Your task to perform on an android device: See recent photos Image 0: 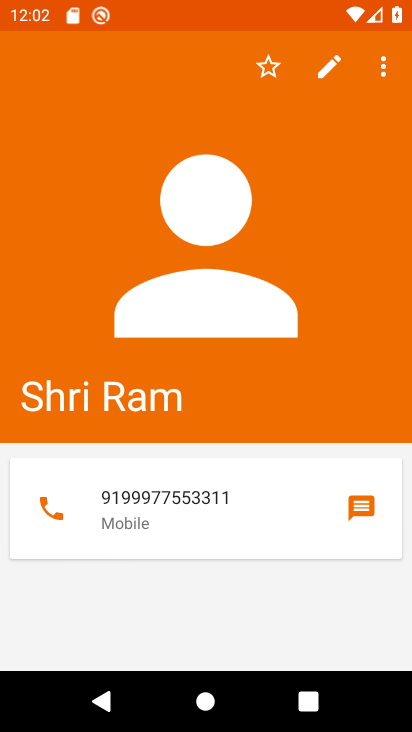
Step 0: press home button
Your task to perform on an android device: See recent photos Image 1: 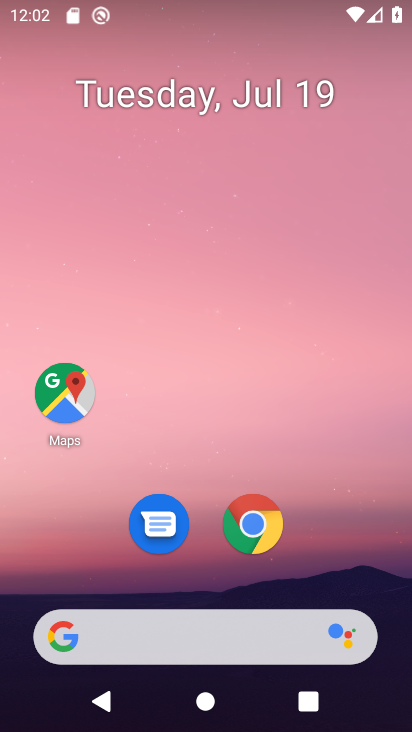
Step 1: drag from (320, 525) to (280, 0)
Your task to perform on an android device: See recent photos Image 2: 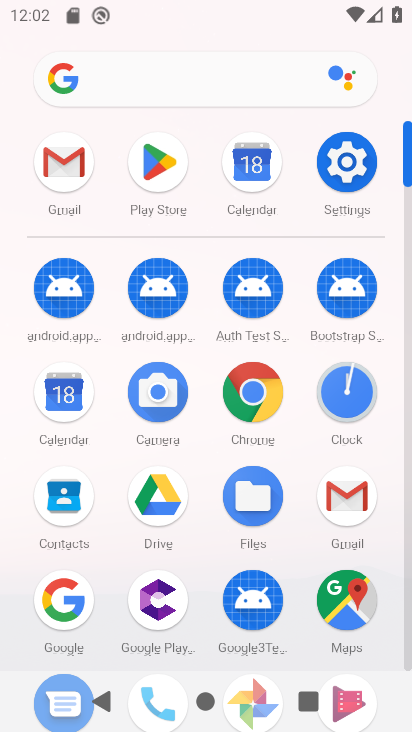
Step 2: drag from (206, 429) to (204, 187)
Your task to perform on an android device: See recent photos Image 3: 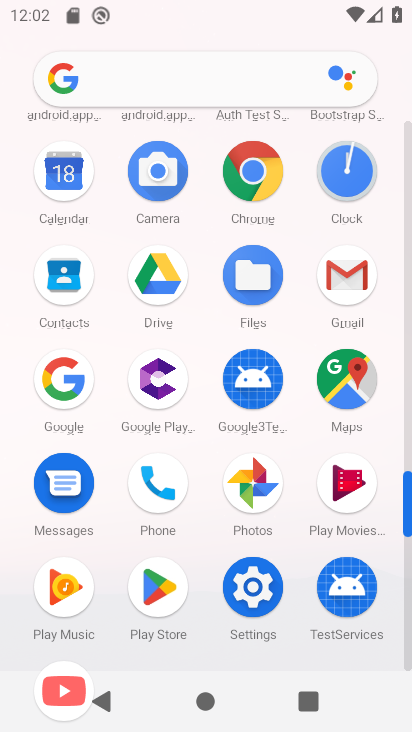
Step 3: click (247, 476)
Your task to perform on an android device: See recent photos Image 4: 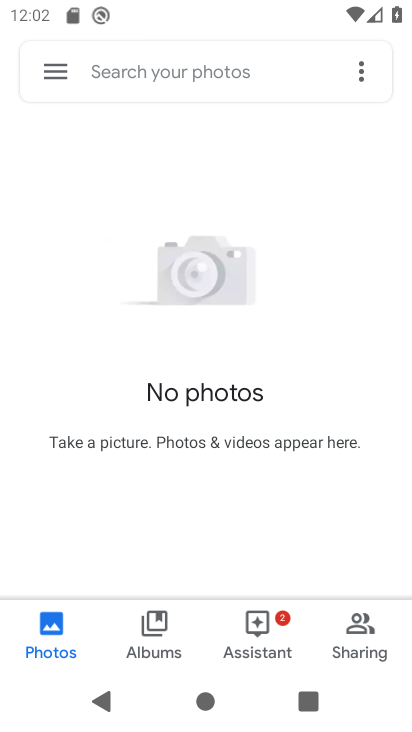
Step 4: task complete